Your task to perform on an android device: check google app version Image 0: 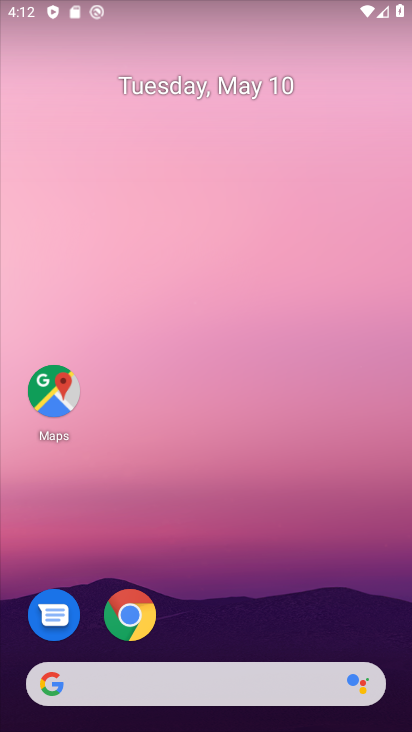
Step 0: drag from (220, 678) to (296, 190)
Your task to perform on an android device: check google app version Image 1: 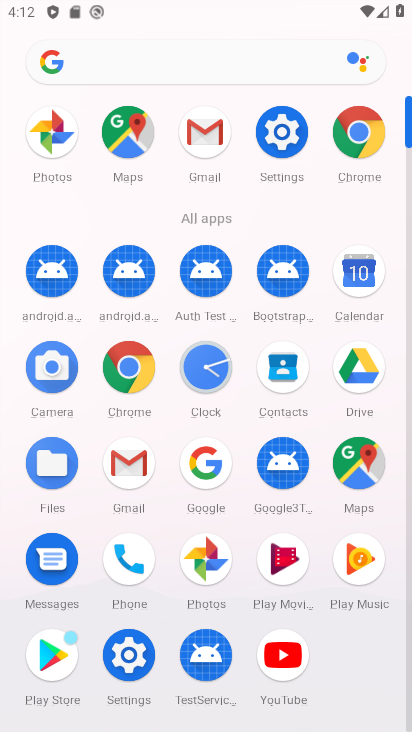
Step 1: drag from (193, 618) to (204, 481)
Your task to perform on an android device: check google app version Image 2: 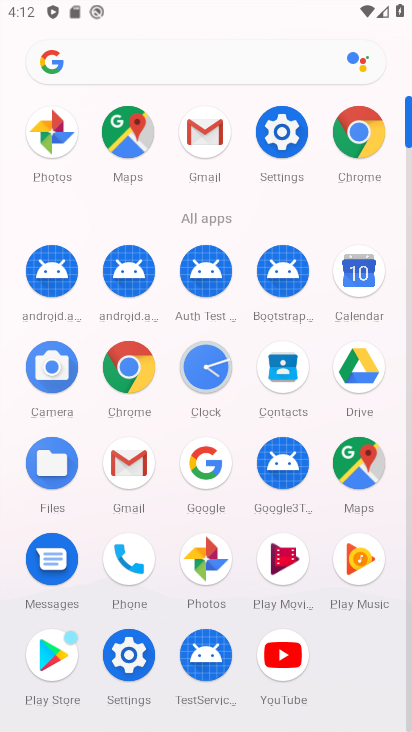
Step 2: click (132, 674)
Your task to perform on an android device: check google app version Image 3: 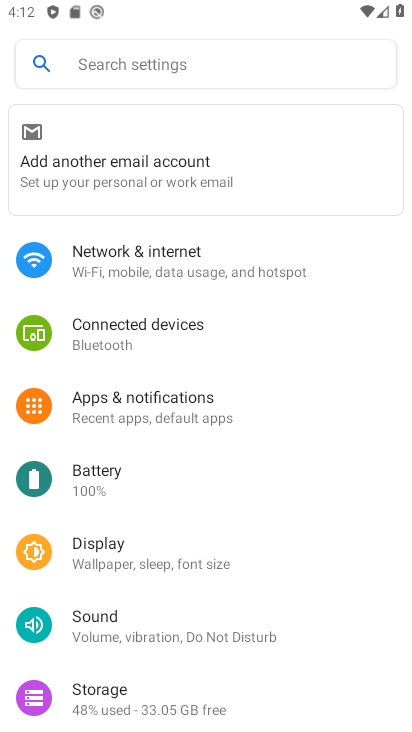
Step 3: drag from (179, 642) to (290, 327)
Your task to perform on an android device: check google app version Image 4: 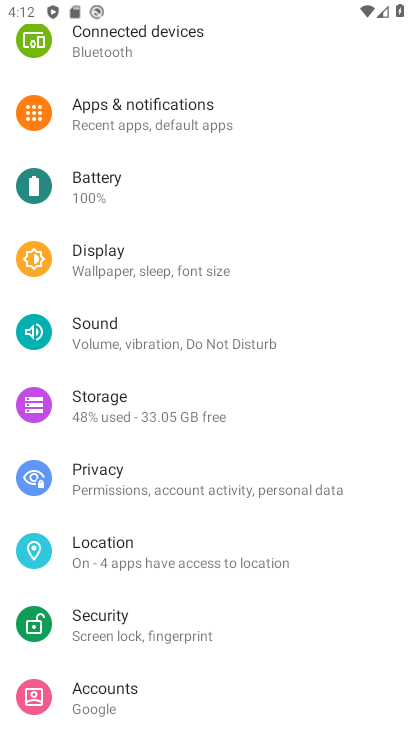
Step 4: click (172, 129)
Your task to perform on an android device: check google app version Image 5: 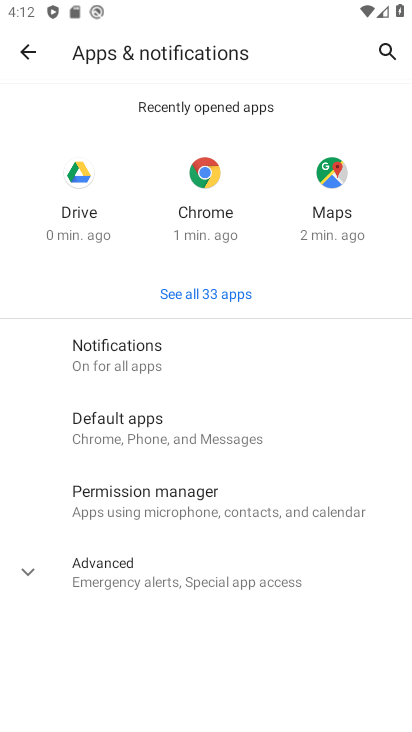
Step 5: click (199, 297)
Your task to perform on an android device: check google app version Image 6: 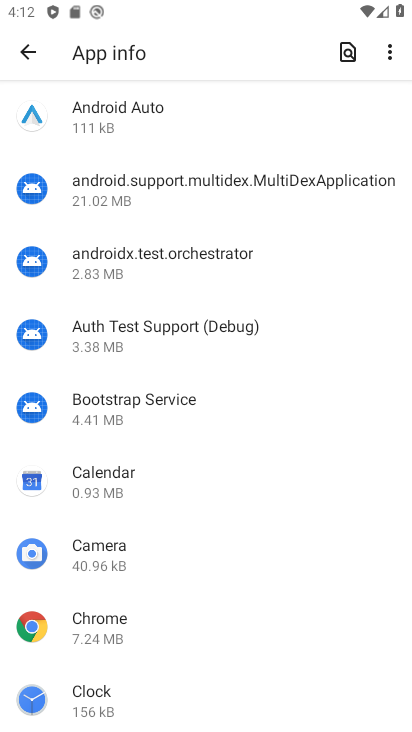
Step 6: drag from (139, 643) to (246, 201)
Your task to perform on an android device: check google app version Image 7: 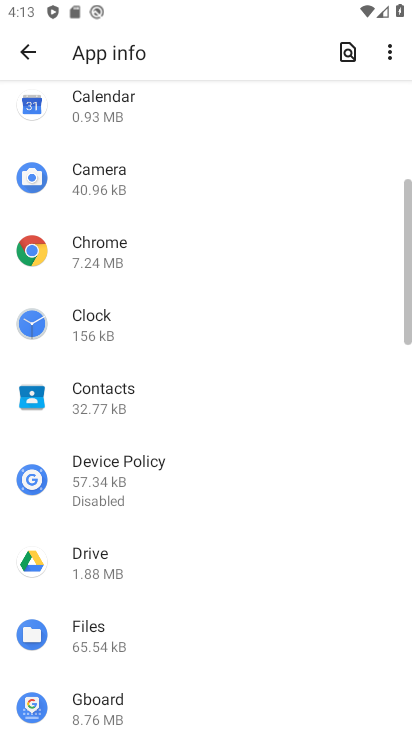
Step 7: drag from (219, 573) to (308, 231)
Your task to perform on an android device: check google app version Image 8: 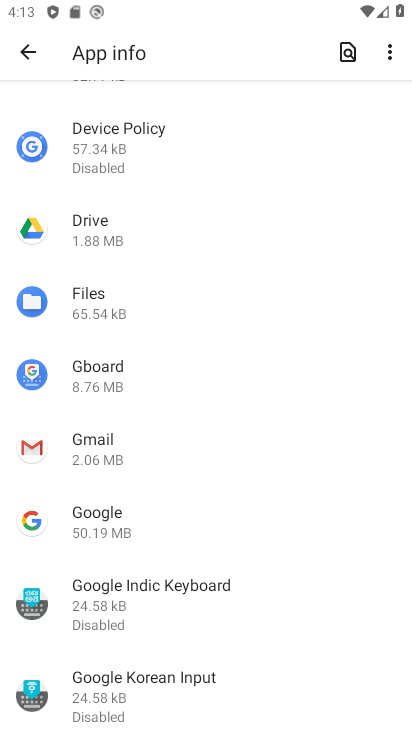
Step 8: click (145, 525)
Your task to perform on an android device: check google app version Image 9: 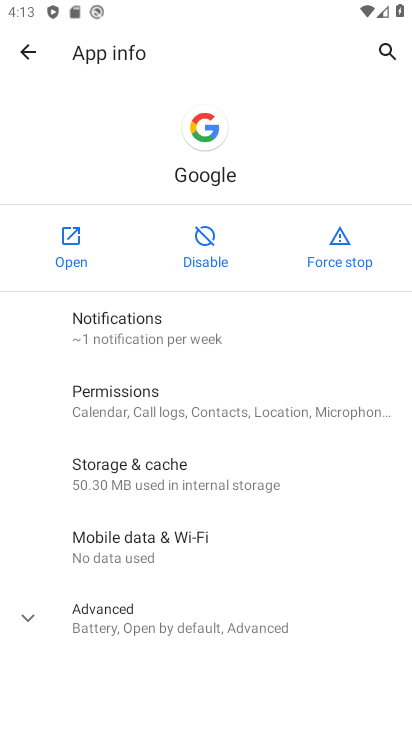
Step 9: click (180, 617)
Your task to perform on an android device: check google app version Image 10: 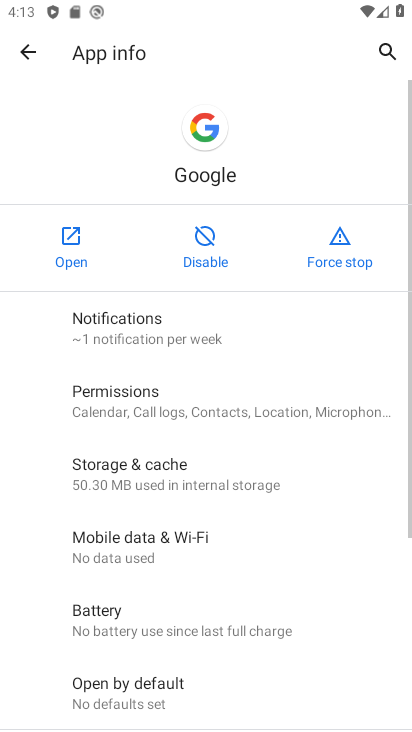
Step 10: task complete